Your task to perform on an android device: Open my contact list Image 0: 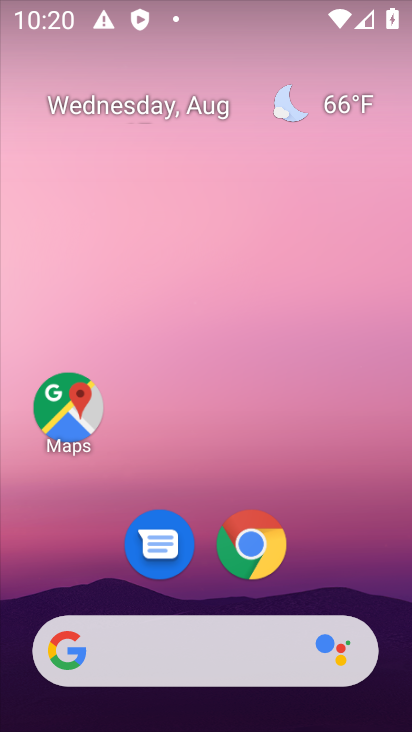
Step 0: drag from (199, 478) to (214, 25)
Your task to perform on an android device: Open my contact list Image 1: 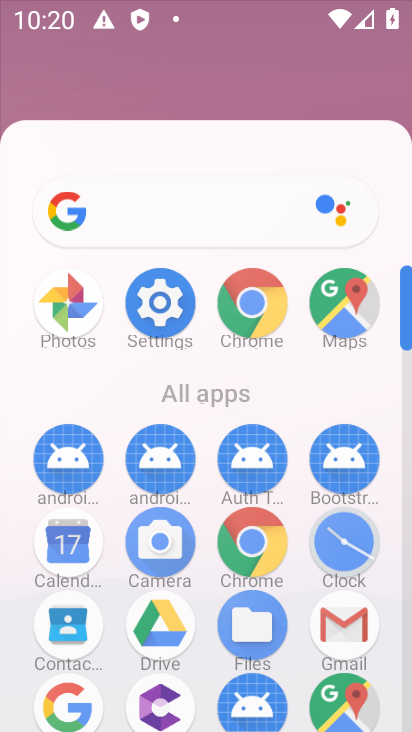
Step 1: task complete